Your task to perform on an android device: Turn off the flashlight Image 0: 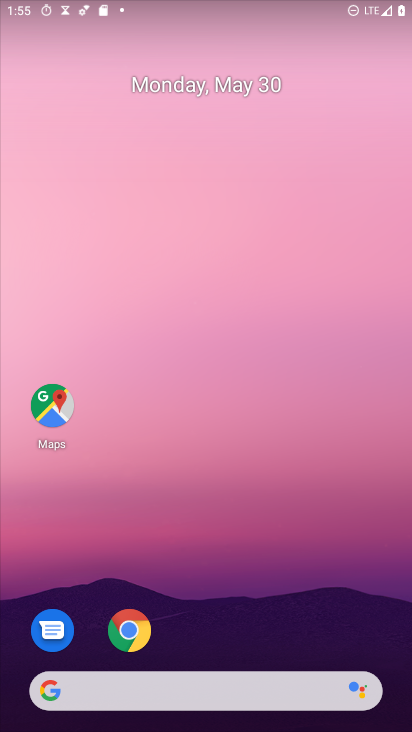
Step 0: drag from (294, 704) to (163, 183)
Your task to perform on an android device: Turn off the flashlight Image 1: 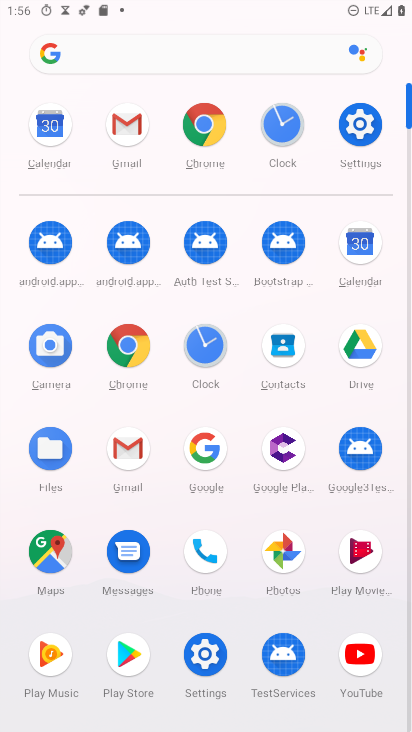
Step 1: click (374, 139)
Your task to perform on an android device: Turn off the flashlight Image 2: 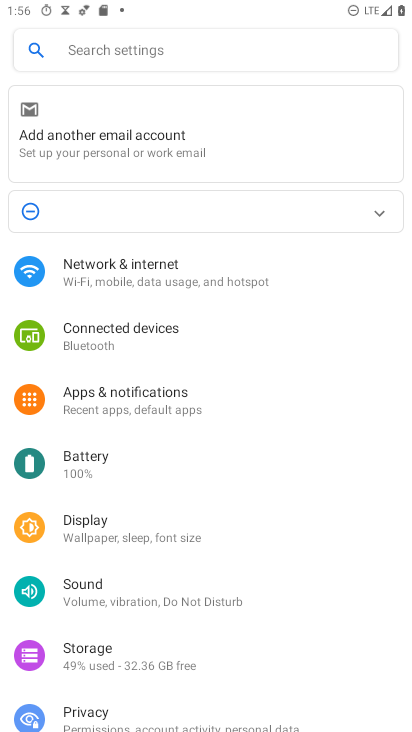
Step 2: click (103, 50)
Your task to perform on an android device: Turn off the flashlight Image 3: 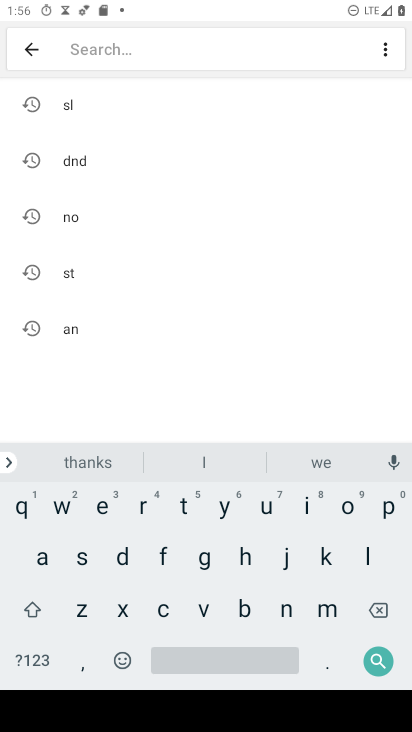
Step 3: click (158, 556)
Your task to perform on an android device: Turn off the flashlight Image 4: 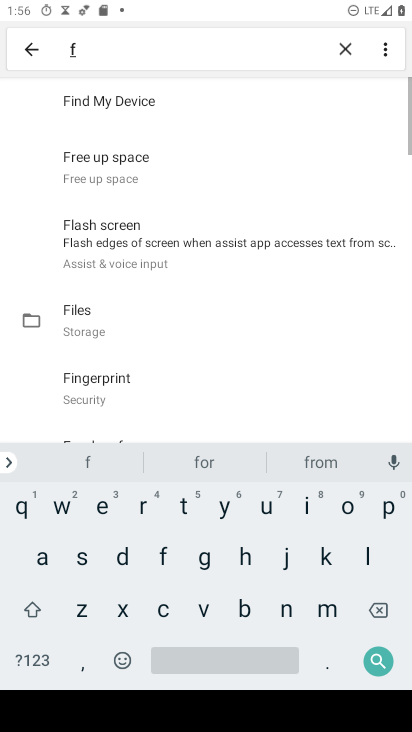
Step 4: click (370, 583)
Your task to perform on an android device: Turn off the flashlight Image 5: 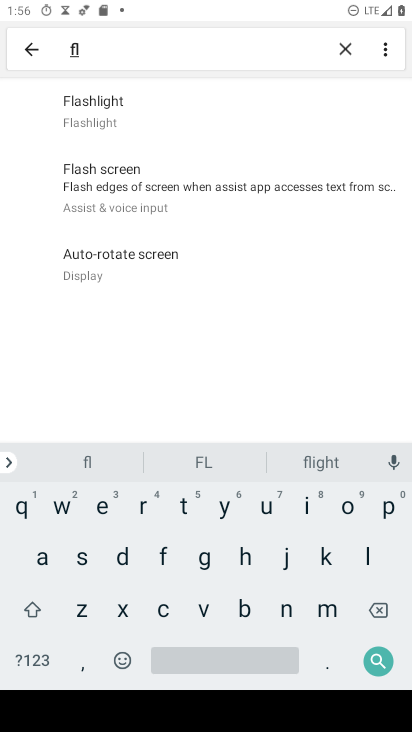
Step 5: click (101, 94)
Your task to perform on an android device: Turn off the flashlight Image 6: 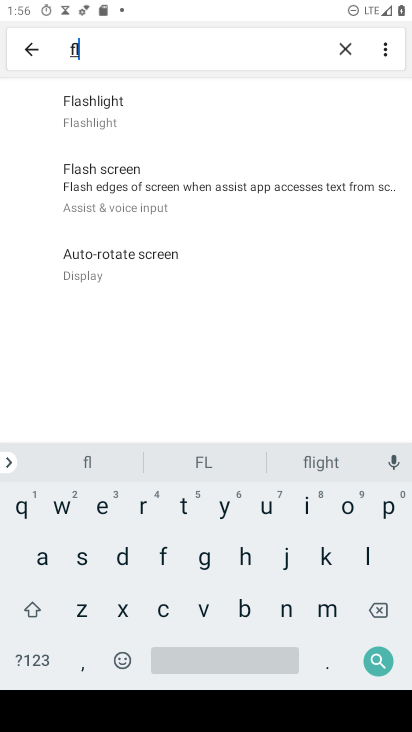
Step 6: task complete